Your task to perform on an android device: Go to wifi settings Image 0: 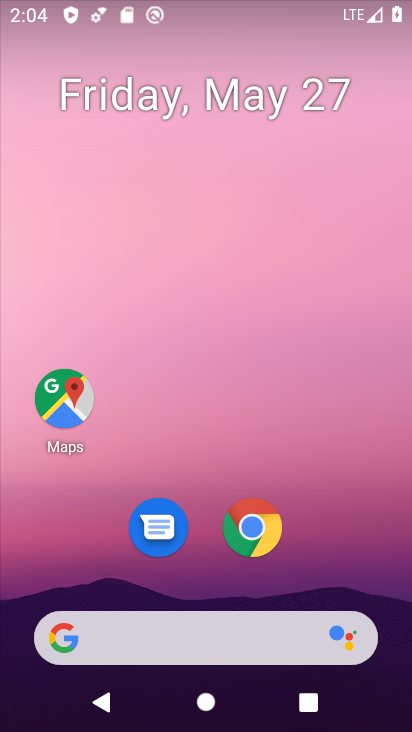
Step 0: drag from (234, 701) to (289, 90)
Your task to perform on an android device: Go to wifi settings Image 1: 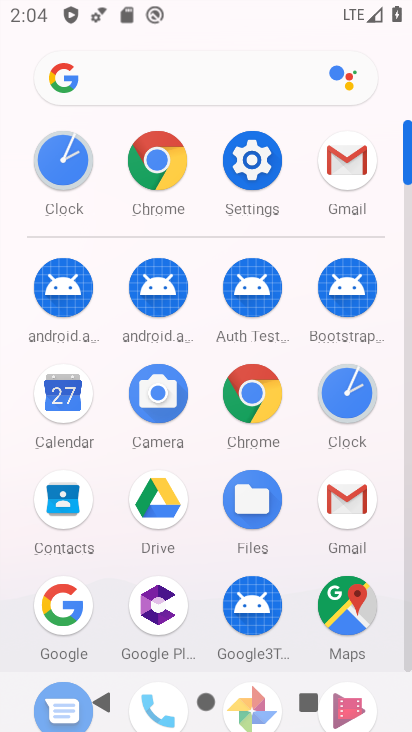
Step 1: click (256, 170)
Your task to perform on an android device: Go to wifi settings Image 2: 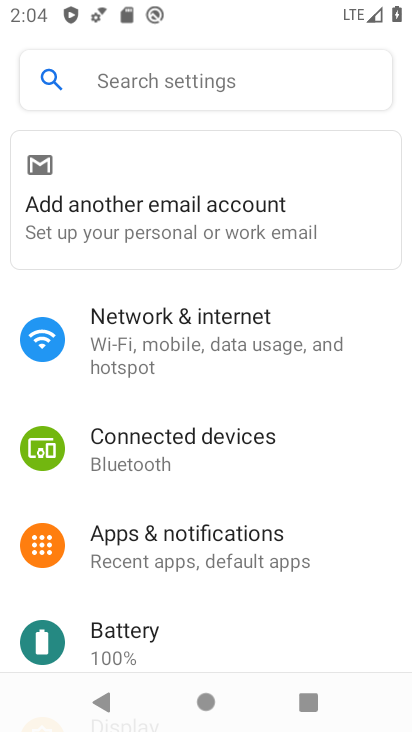
Step 2: click (218, 343)
Your task to perform on an android device: Go to wifi settings Image 3: 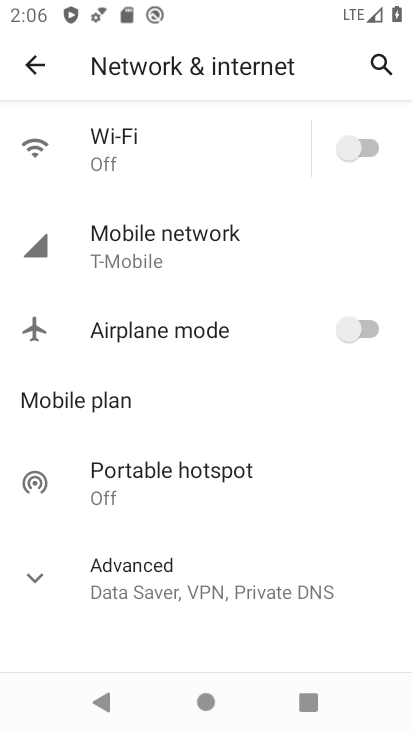
Step 3: click (175, 155)
Your task to perform on an android device: Go to wifi settings Image 4: 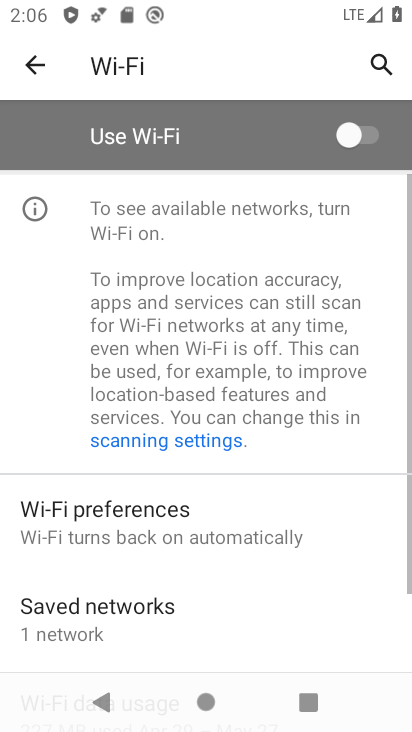
Step 4: task complete